Your task to perform on an android device: Clear the cart on bestbuy. Image 0: 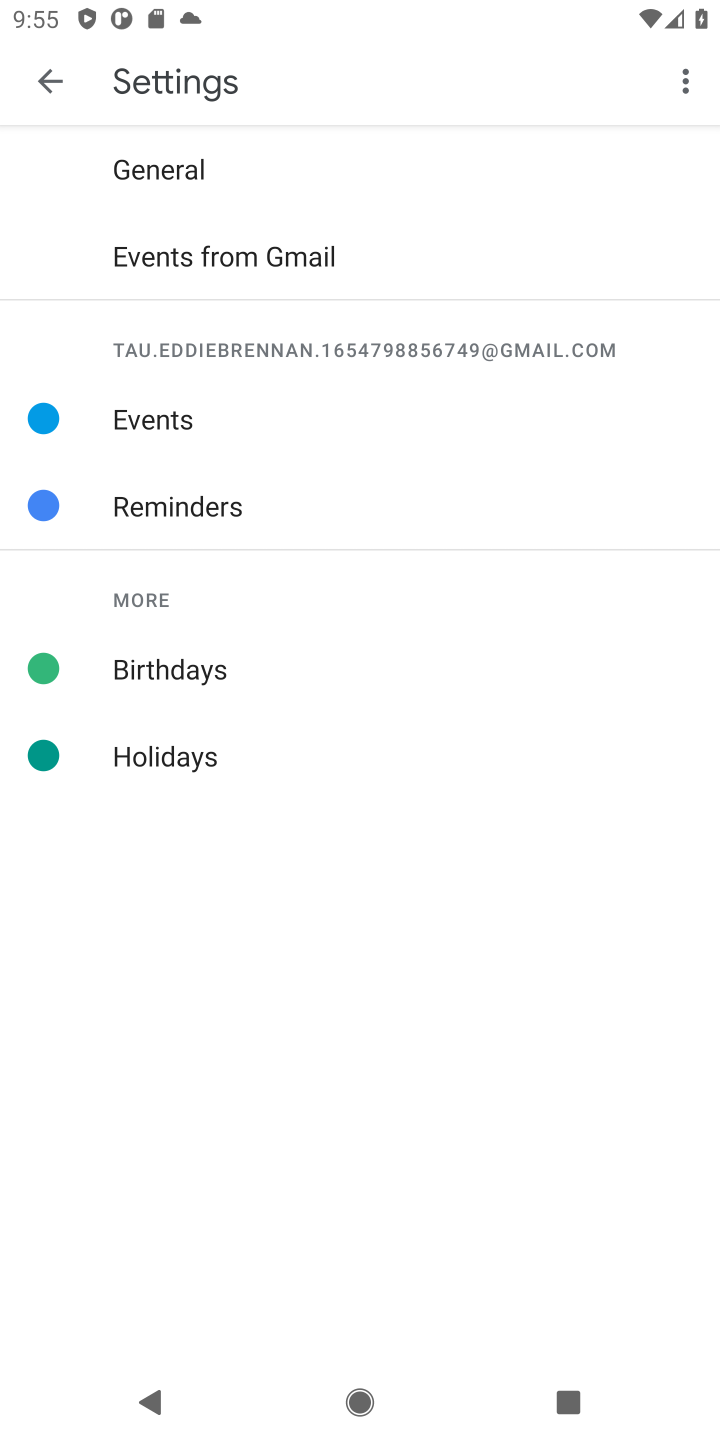
Step 0: press home button
Your task to perform on an android device: Clear the cart on bestbuy. Image 1: 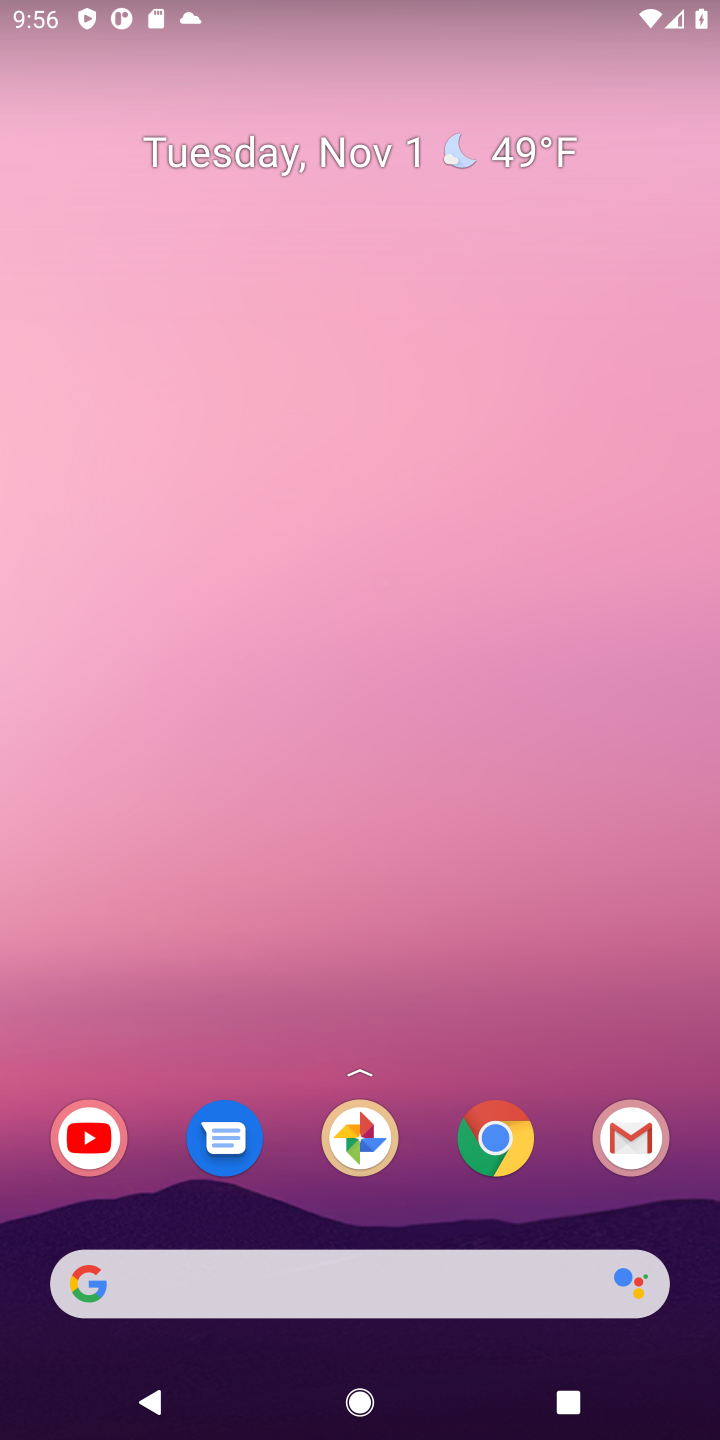
Step 1: click (495, 1136)
Your task to perform on an android device: Clear the cart on bestbuy. Image 2: 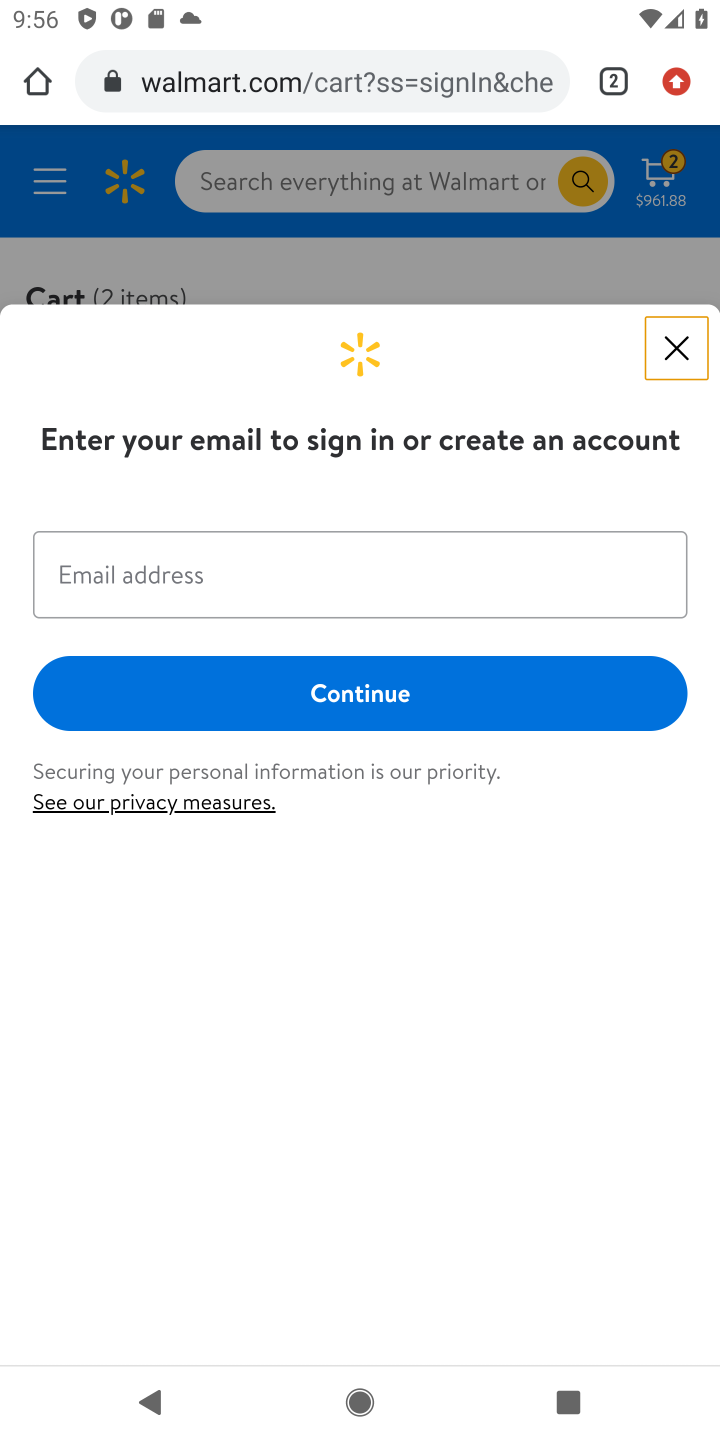
Step 2: click (409, 91)
Your task to perform on an android device: Clear the cart on bestbuy. Image 3: 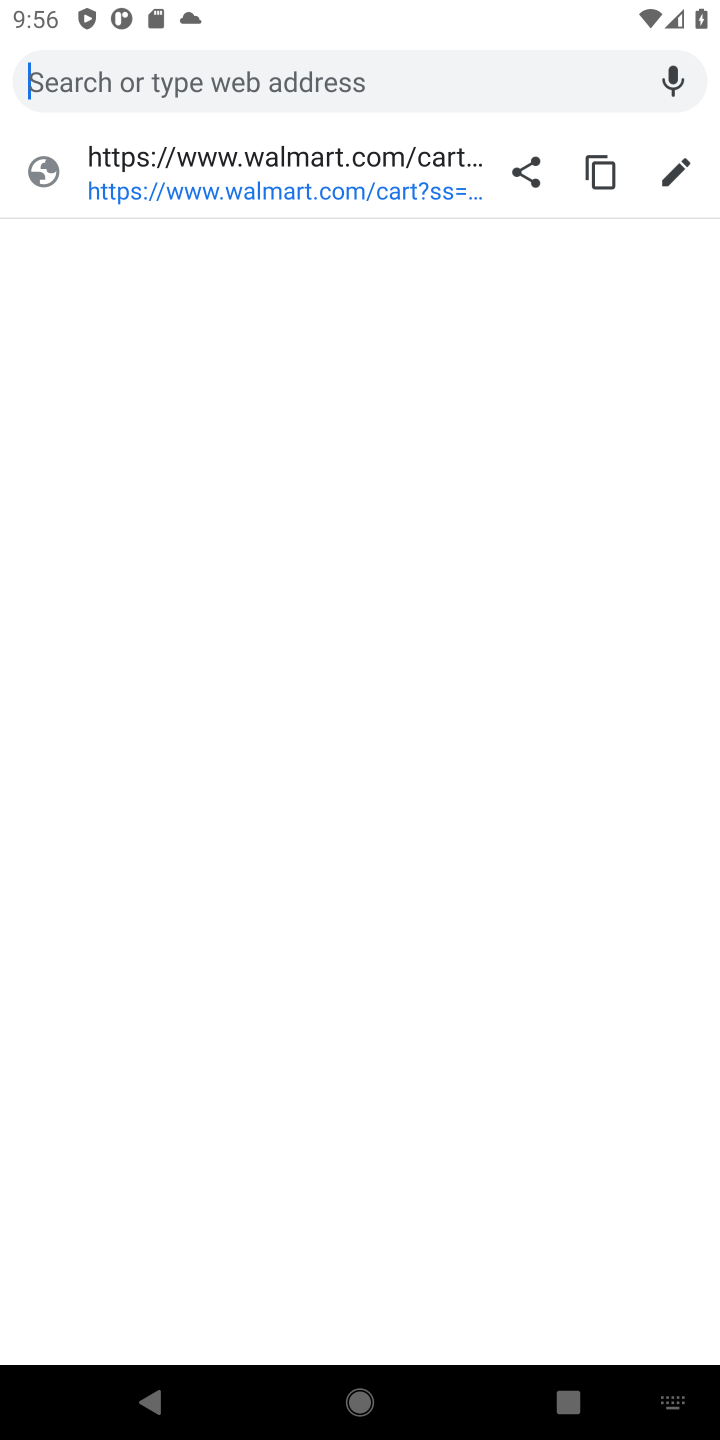
Step 3: type "bestbuy"
Your task to perform on an android device: Clear the cart on bestbuy. Image 4: 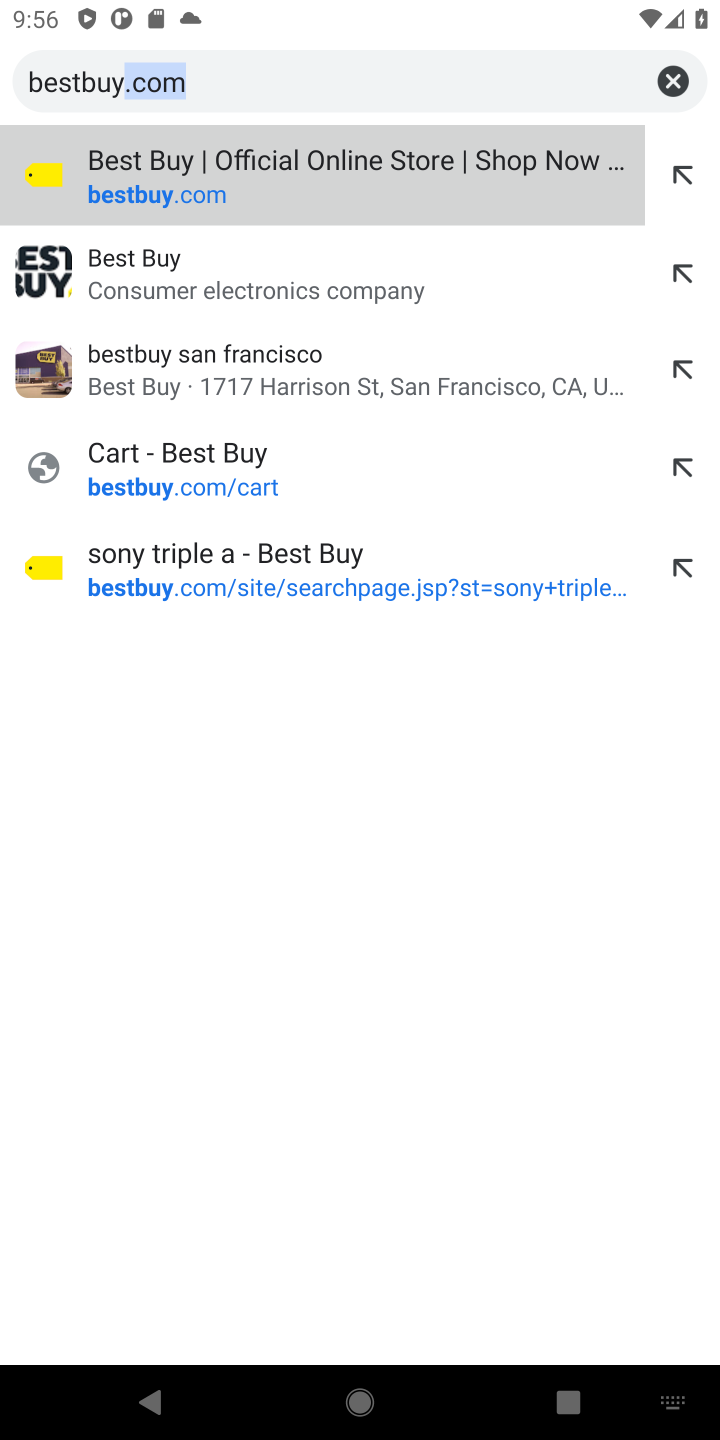
Step 4: click (212, 276)
Your task to perform on an android device: Clear the cart on bestbuy. Image 5: 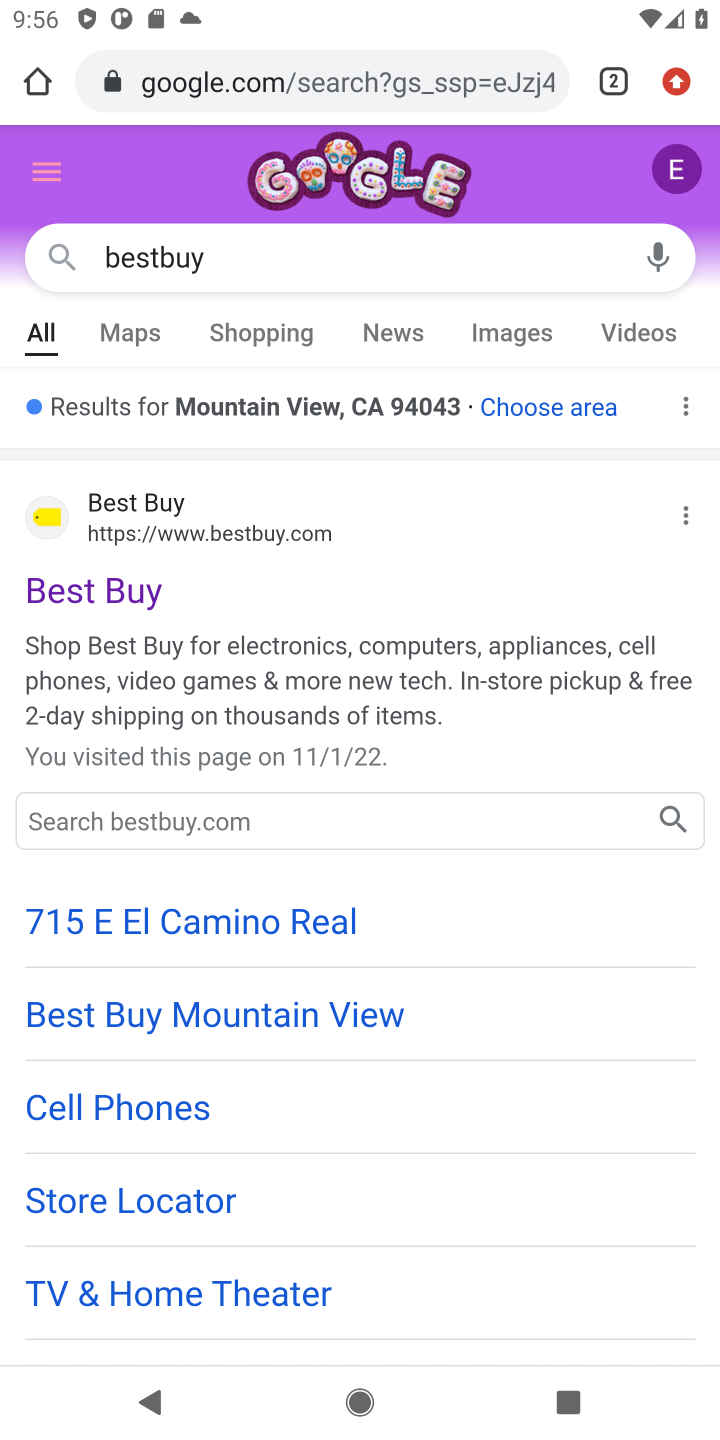
Step 5: click (193, 565)
Your task to perform on an android device: Clear the cart on bestbuy. Image 6: 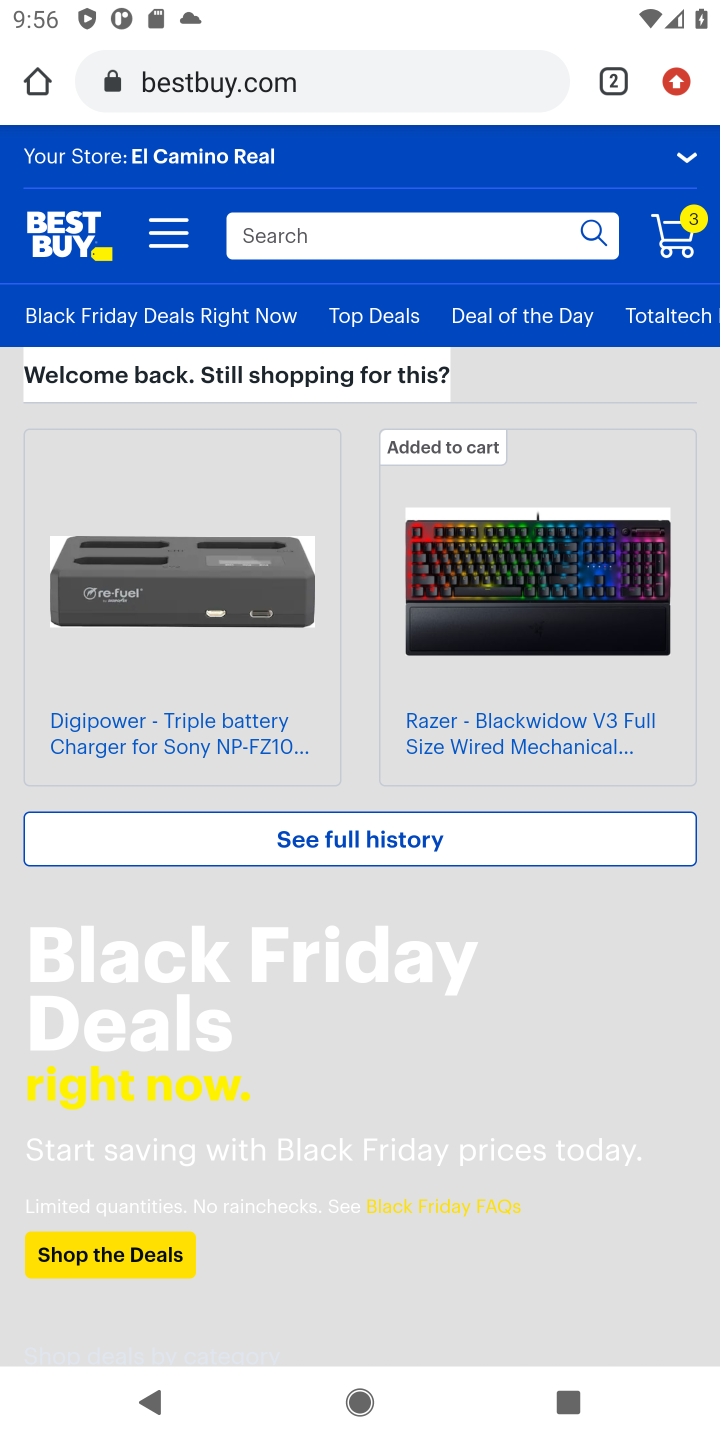
Step 6: click (689, 244)
Your task to perform on an android device: Clear the cart on bestbuy. Image 7: 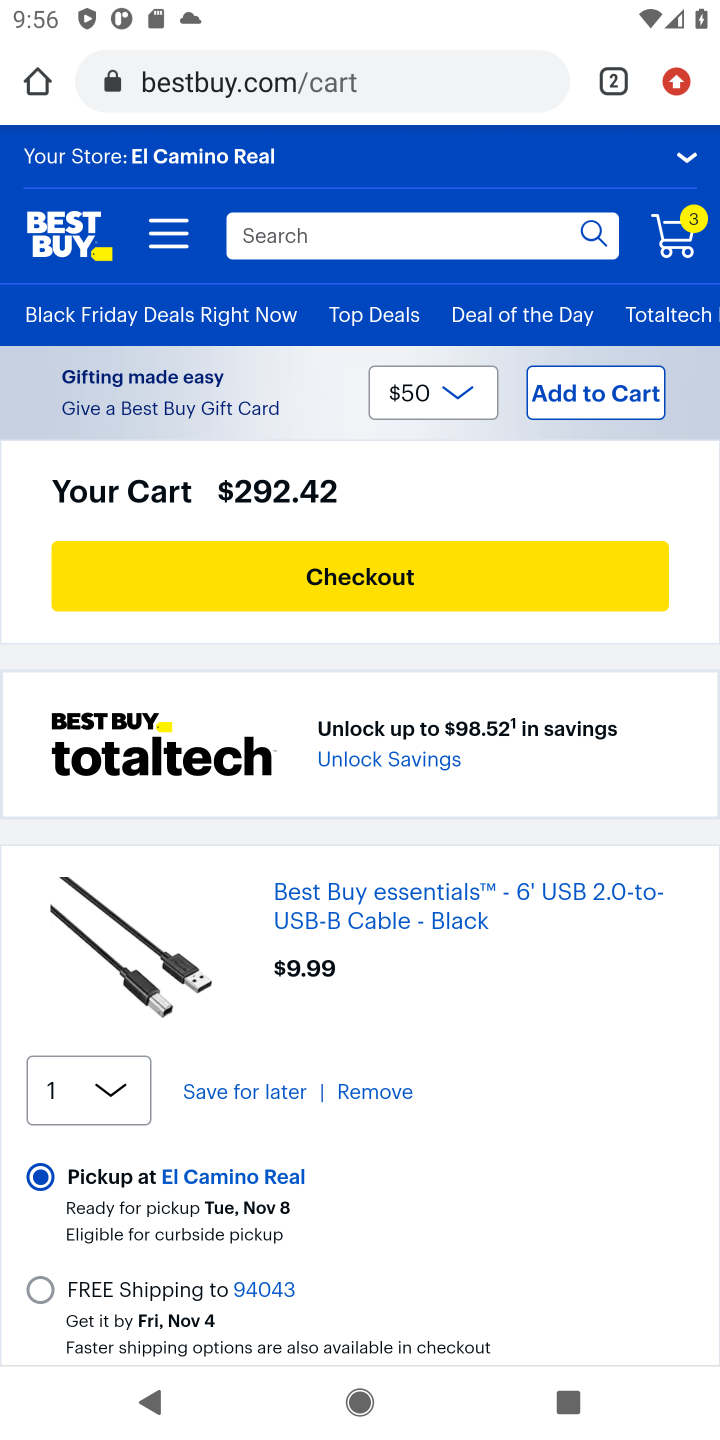
Step 7: click (378, 1089)
Your task to perform on an android device: Clear the cart on bestbuy. Image 8: 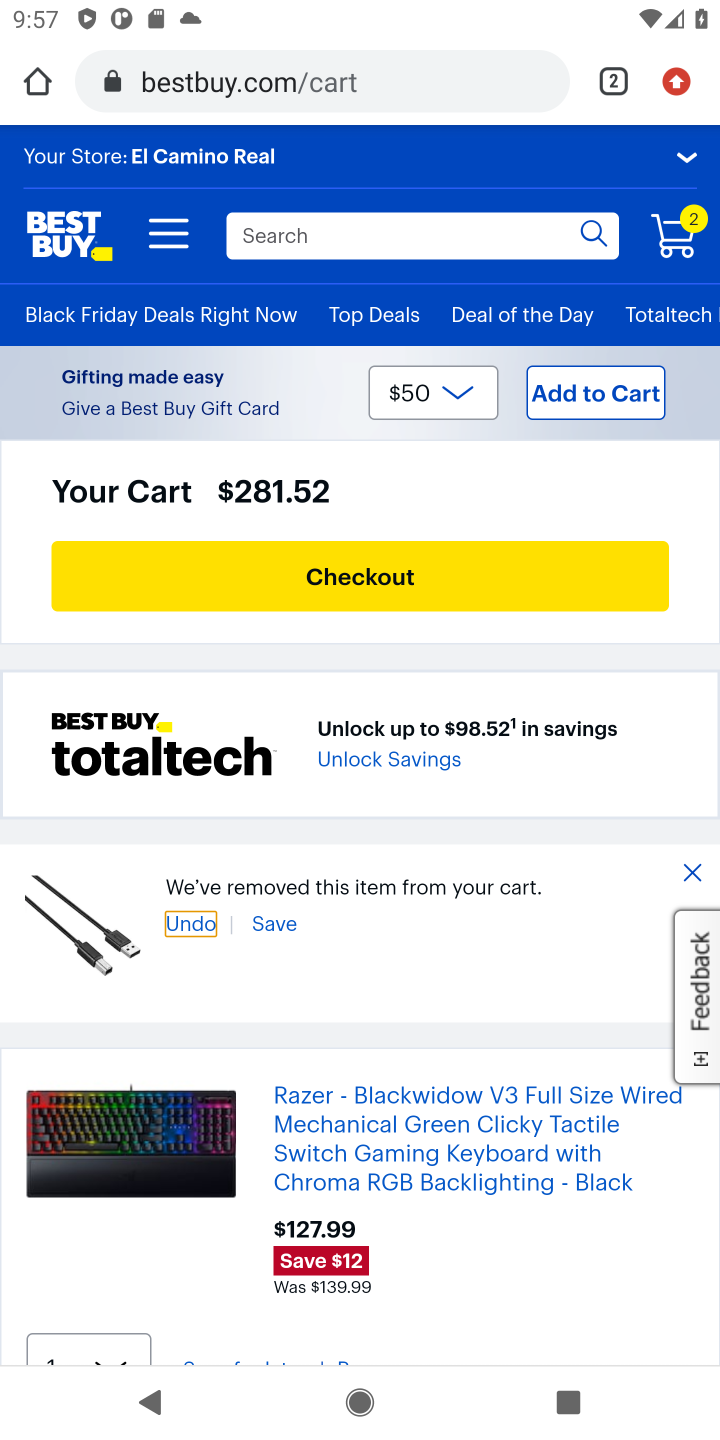
Step 8: drag from (506, 1231) to (509, 737)
Your task to perform on an android device: Clear the cart on bestbuy. Image 9: 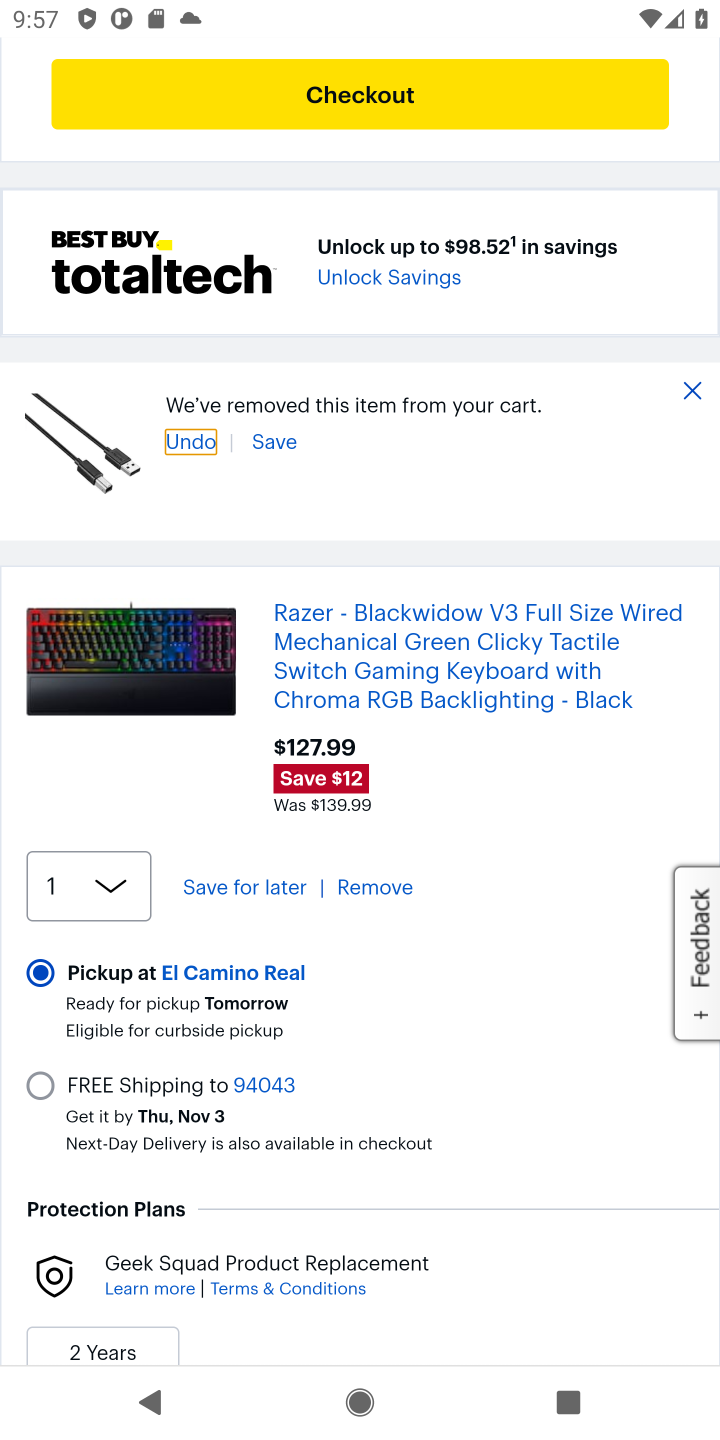
Step 9: click (372, 880)
Your task to perform on an android device: Clear the cart on bestbuy. Image 10: 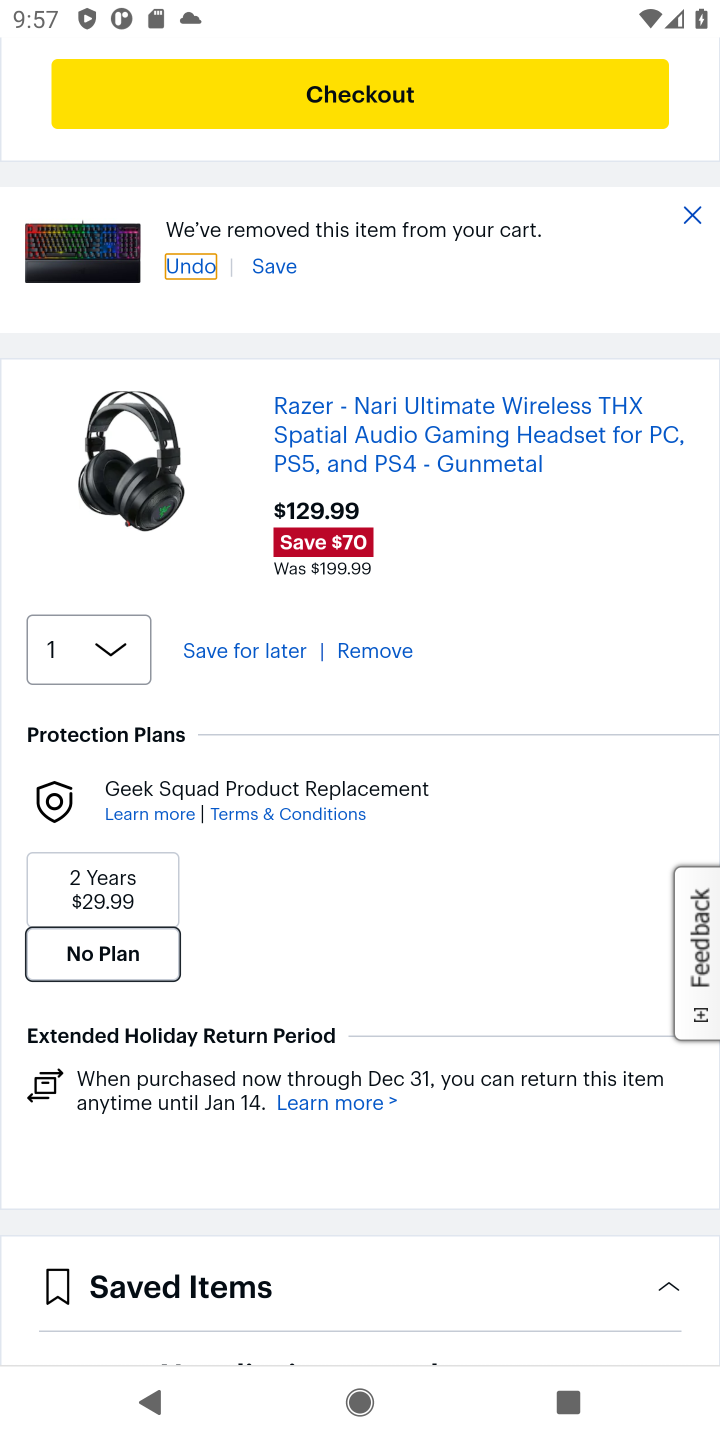
Step 10: click (377, 646)
Your task to perform on an android device: Clear the cart on bestbuy. Image 11: 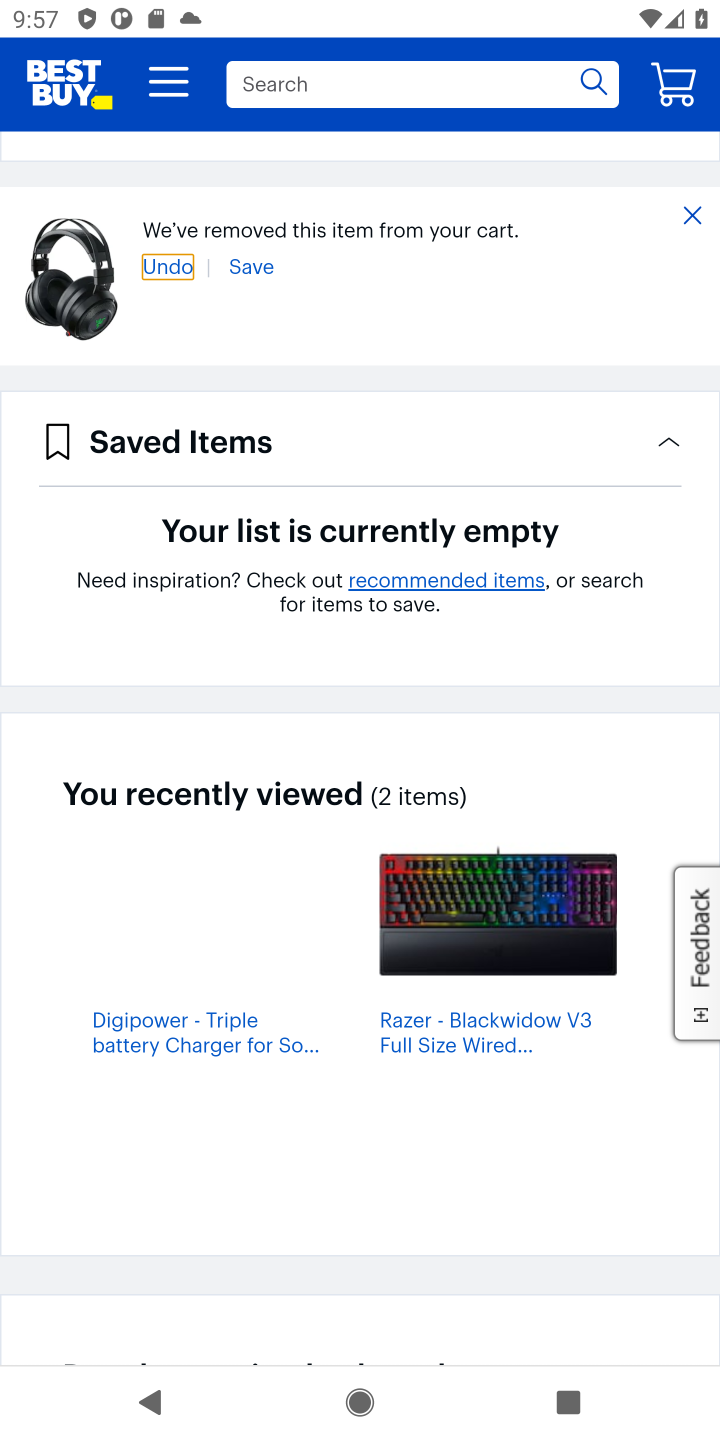
Step 11: task complete